Your task to perform on an android device: open chrome and create a bookmark for the current page Image 0: 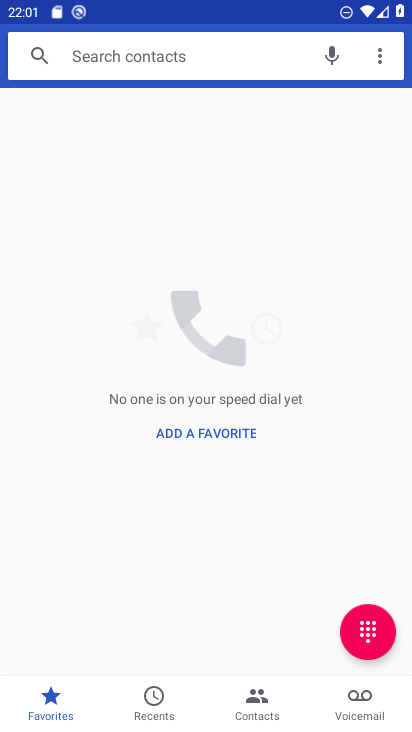
Step 0: press home button
Your task to perform on an android device: open chrome and create a bookmark for the current page Image 1: 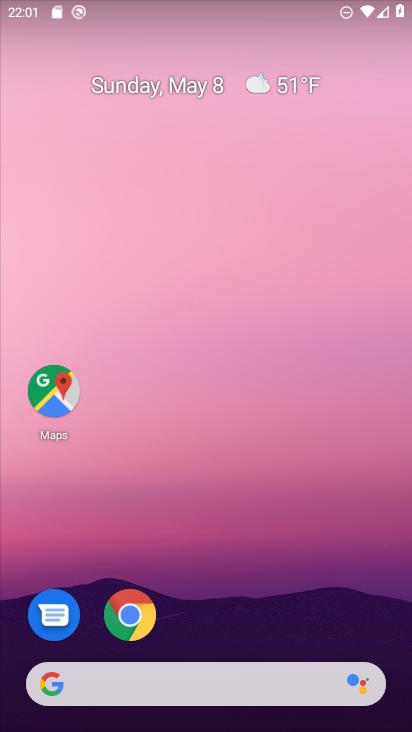
Step 1: drag from (308, 597) to (151, 90)
Your task to perform on an android device: open chrome and create a bookmark for the current page Image 2: 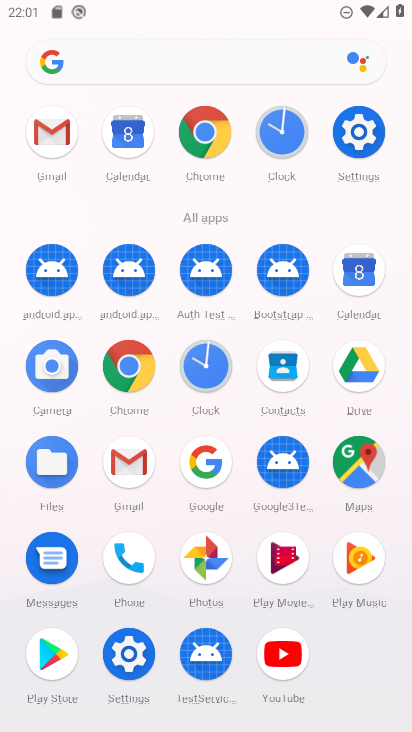
Step 2: click (198, 141)
Your task to perform on an android device: open chrome and create a bookmark for the current page Image 3: 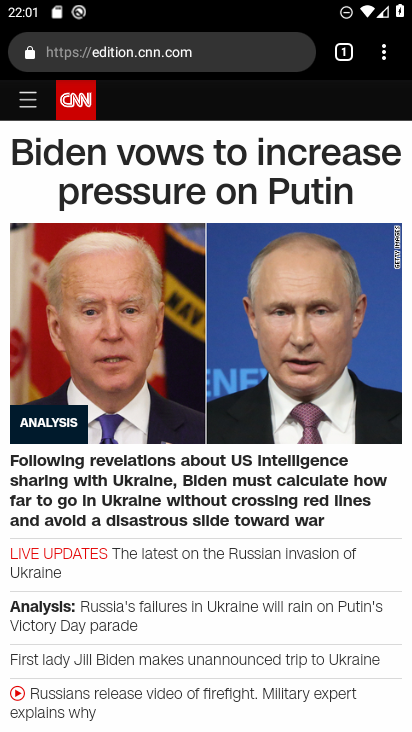
Step 3: task complete